Your task to perform on an android device: Open the web browser Image 0: 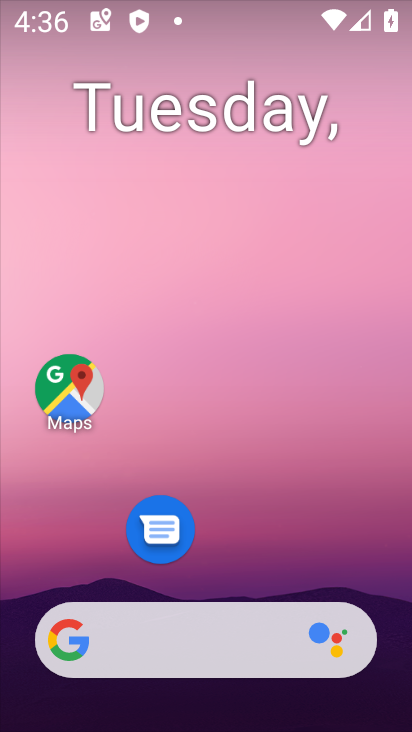
Step 0: drag from (140, 587) to (164, 142)
Your task to perform on an android device: Open the web browser Image 1: 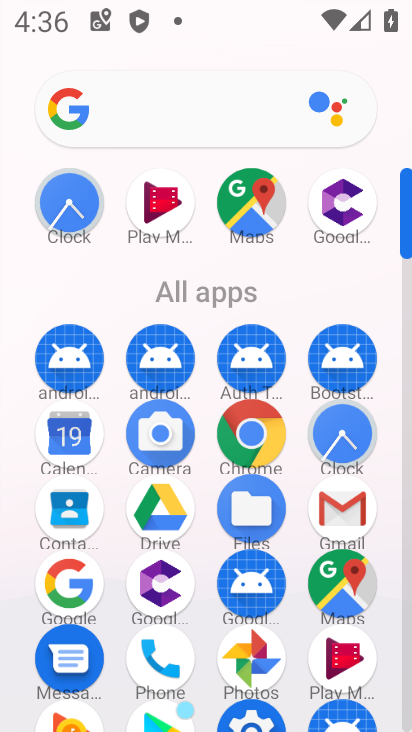
Step 1: click (254, 437)
Your task to perform on an android device: Open the web browser Image 2: 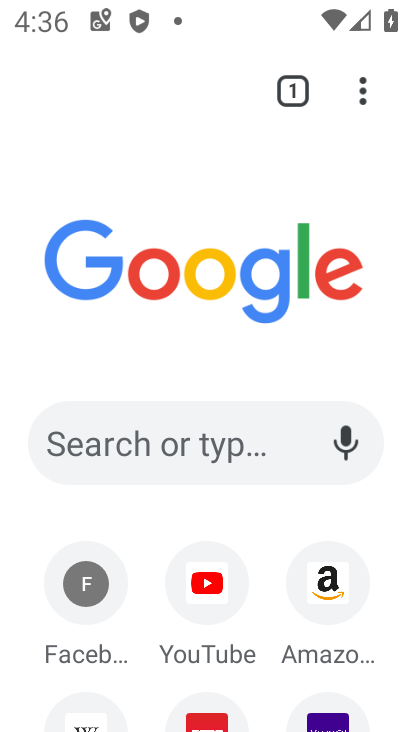
Step 2: click (170, 430)
Your task to perform on an android device: Open the web browser Image 3: 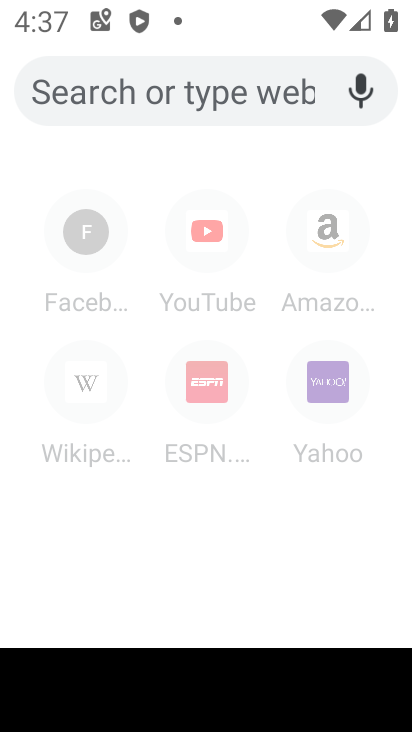
Step 3: task complete